Your task to perform on an android device: Open settings on Google Maps Image 0: 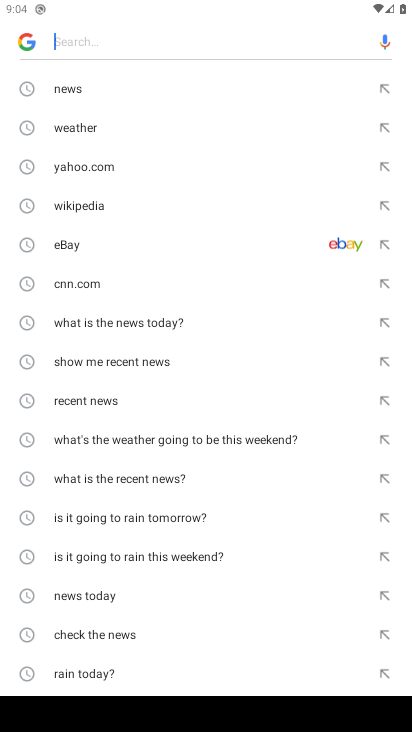
Step 0: press home button
Your task to perform on an android device: Open settings on Google Maps Image 1: 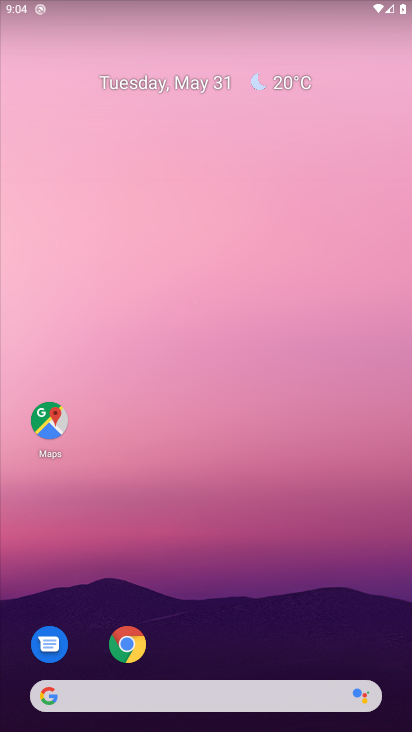
Step 1: click (50, 412)
Your task to perform on an android device: Open settings on Google Maps Image 2: 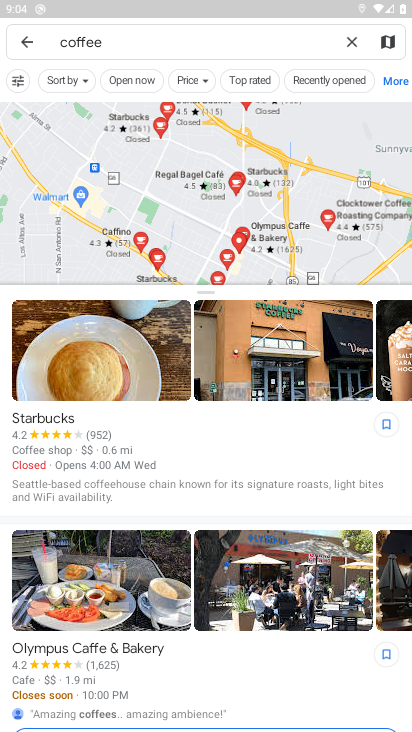
Step 2: click (25, 37)
Your task to perform on an android device: Open settings on Google Maps Image 3: 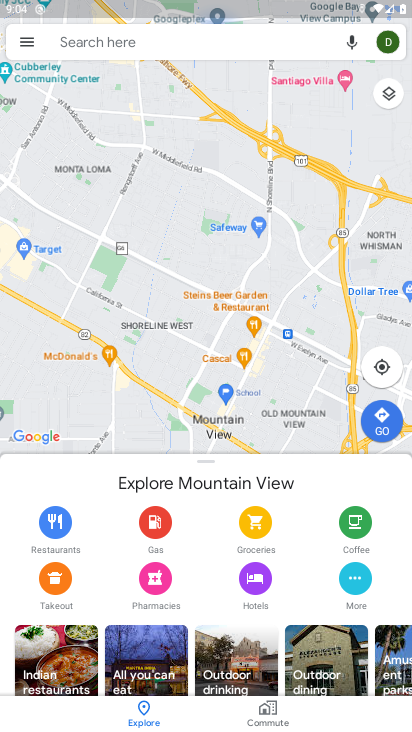
Step 3: click (21, 41)
Your task to perform on an android device: Open settings on Google Maps Image 4: 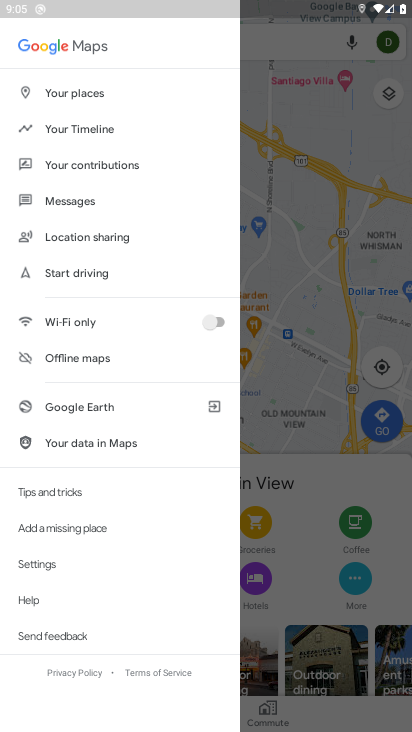
Step 4: click (57, 560)
Your task to perform on an android device: Open settings on Google Maps Image 5: 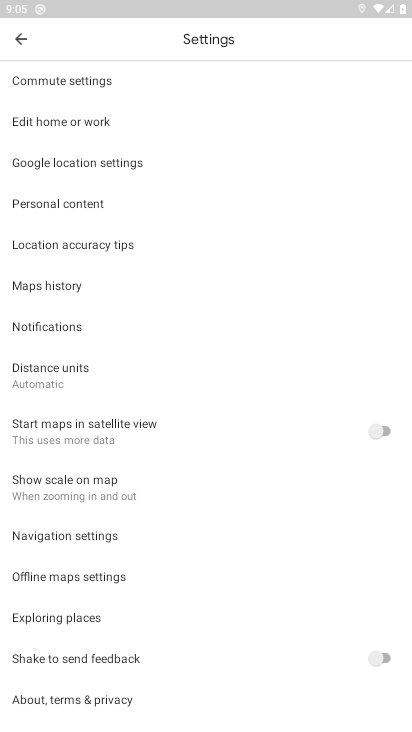
Step 5: task complete